Your task to perform on an android device: turn off location history Image 0: 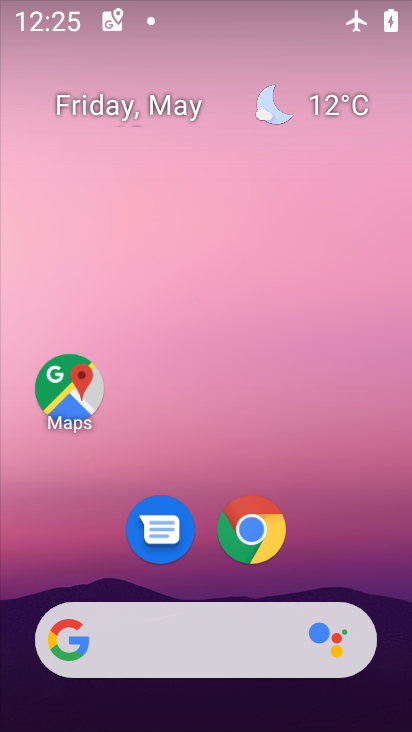
Step 0: drag from (317, 534) to (310, 232)
Your task to perform on an android device: turn off location history Image 1: 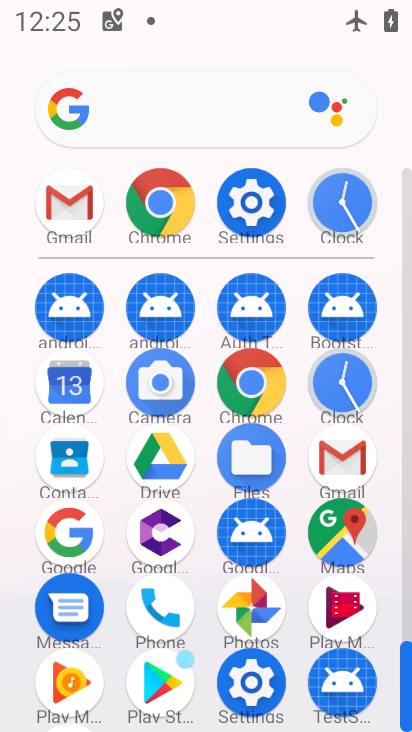
Step 1: click (246, 176)
Your task to perform on an android device: turn off location history Image 2: 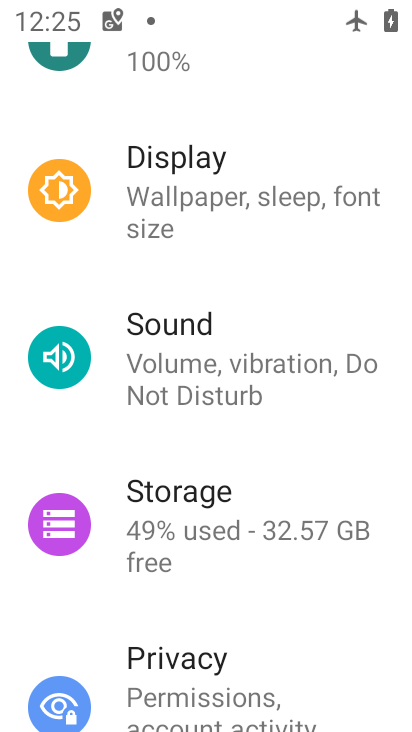
Step 2: drag from (224, 618) to (233, 99)
Your task to perform on an android device: turn off location history Image 3: 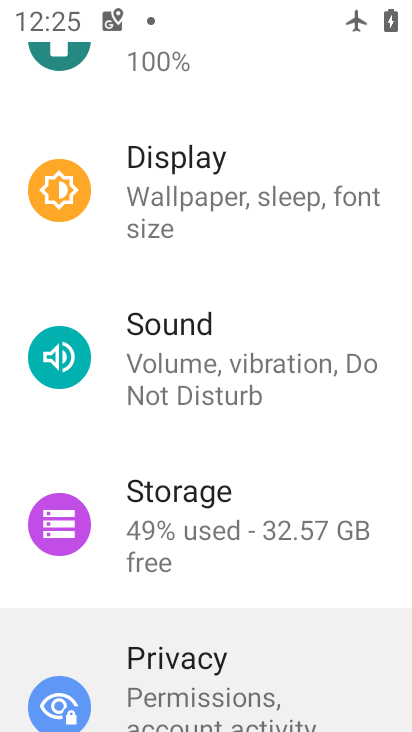
Step 3: drag from (215, 579) to (281, 224)
Your task to perform on an android device: turn off location history Image 4: 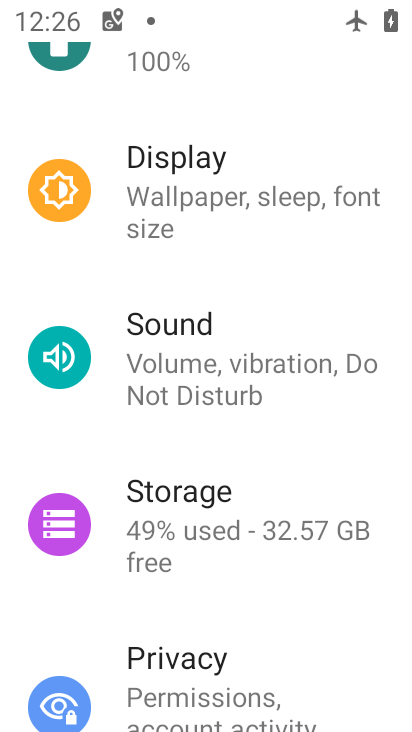
Step 4: drag from (215, 511) to (279, 195)
Your task to perform on an android device: turn off location history Image 5: 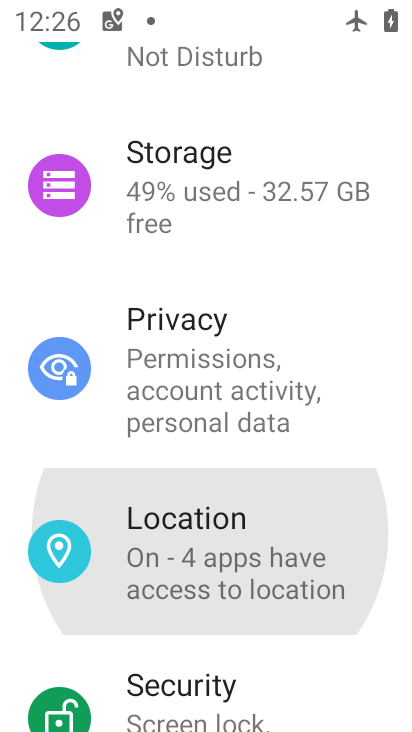
Step 5: drag from (206, 540) to (255, 233)
Your task to perform on an android device: turn off location history Image 6: 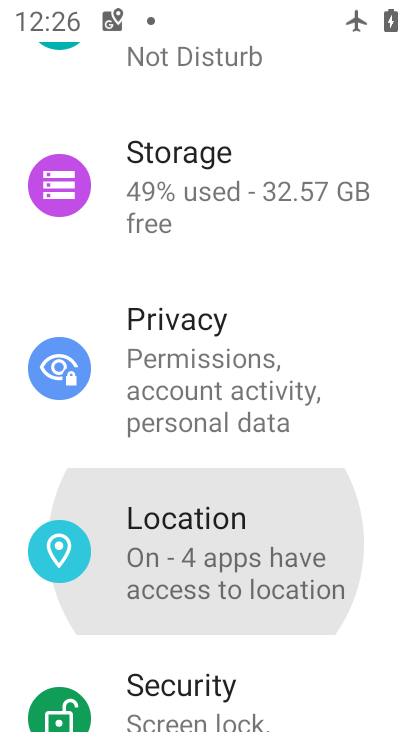
Step 6: drag from (147, 604) to (191, 332)
Your task to perform on an android device: turn off location history Image 7: 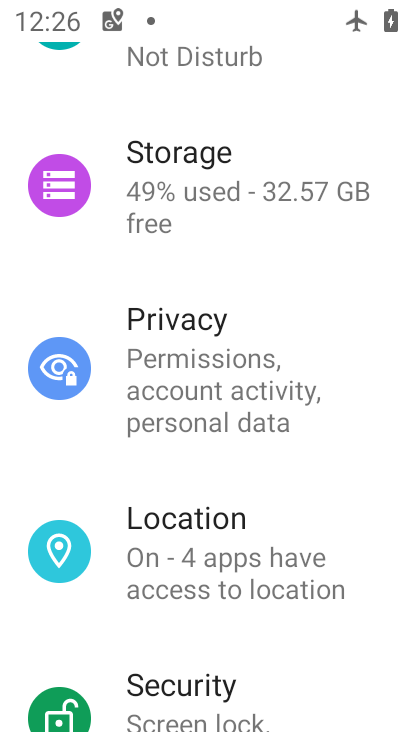
Step 7: drag from (248, 524) to (241, 378)
Your task to perform on an android device: turn off location history Image 8: 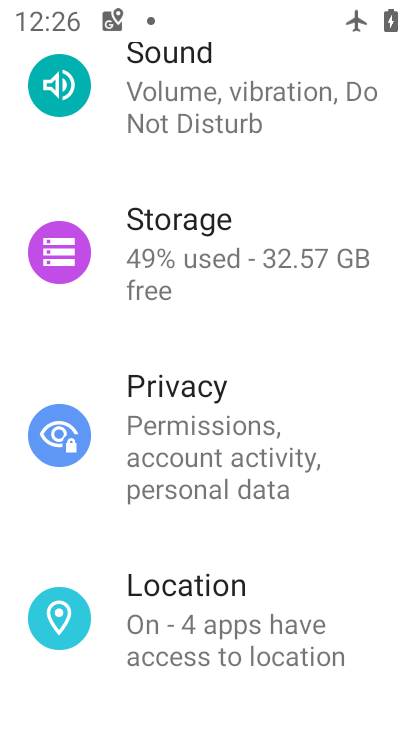
Step 8: click (201, 508)
Your task to perform on an android device: turn off location history Image 9: 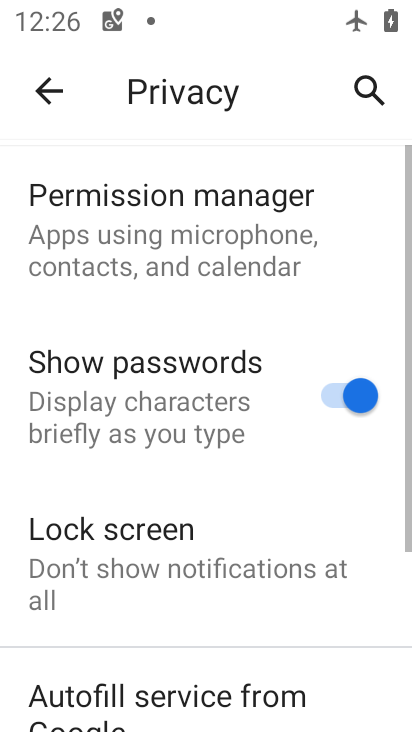
Step 9: click (40, 84)
Your task to perform on an android device: turn off location history Image 10: 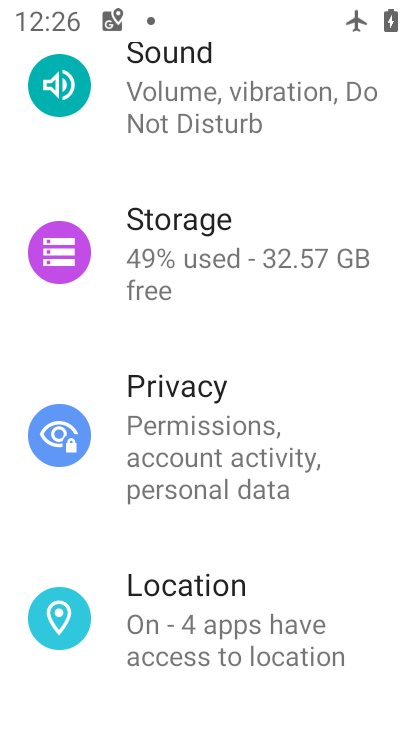
Step 10: click (240, 602)
Your task to perform on an android device: turn off location history Image 11: 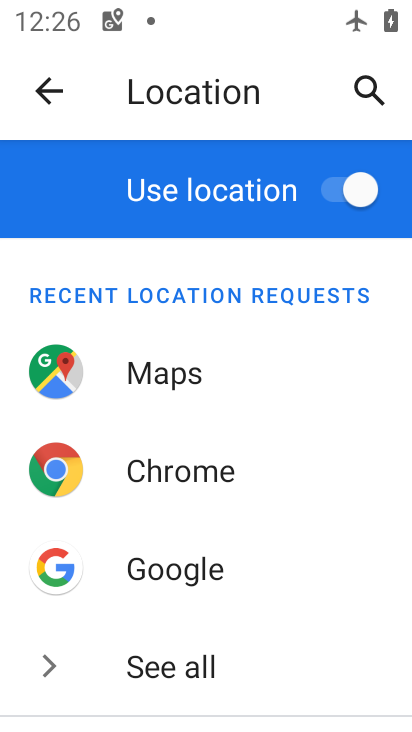
Step 11: drag from (218, 617) to (214, 335)
Your task to perform on an android device: turn off location history Image 12: 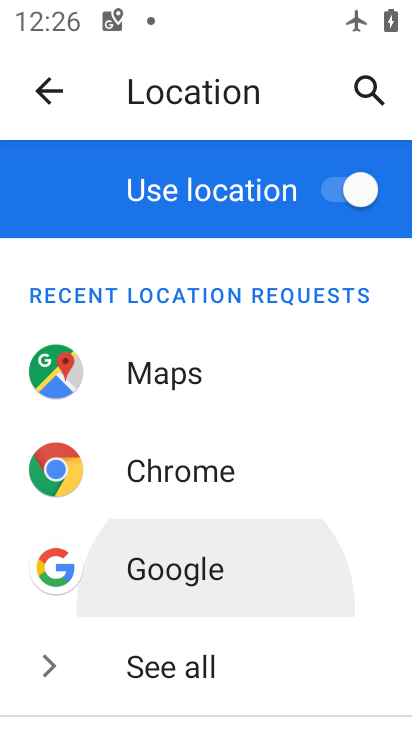
Step 12: drag from (182, 610) to (237, 378)
Your task to perform on an android device: turn off location history Image 13: 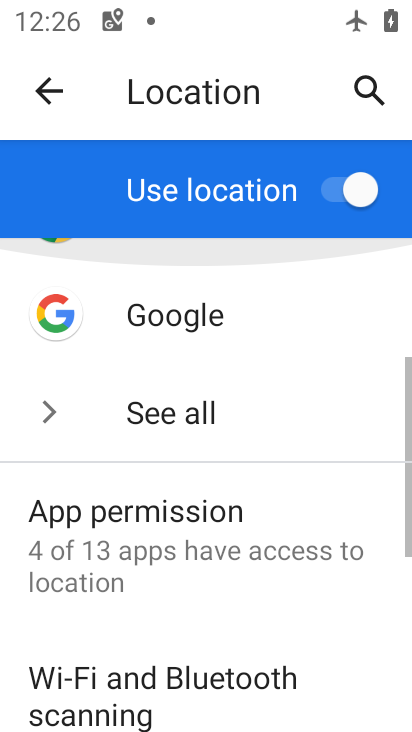
Step 13: drag from (199, 599) to (257, 378)
Your task to perform on an android device: turn off location history Image 14: 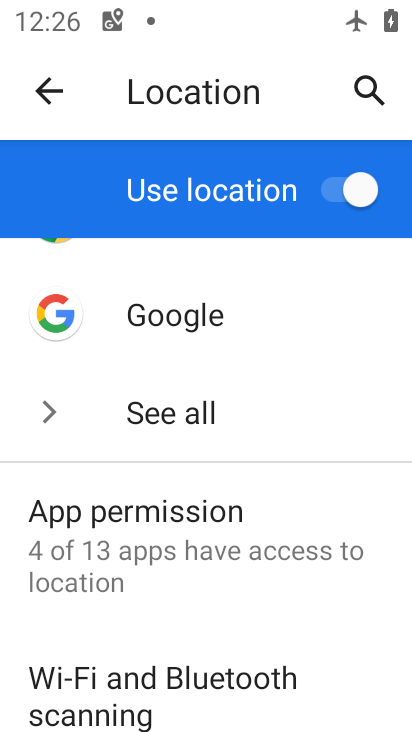
Step 14: click (337, 187)
Your task to perform on an android device: turn off location history Image 15: 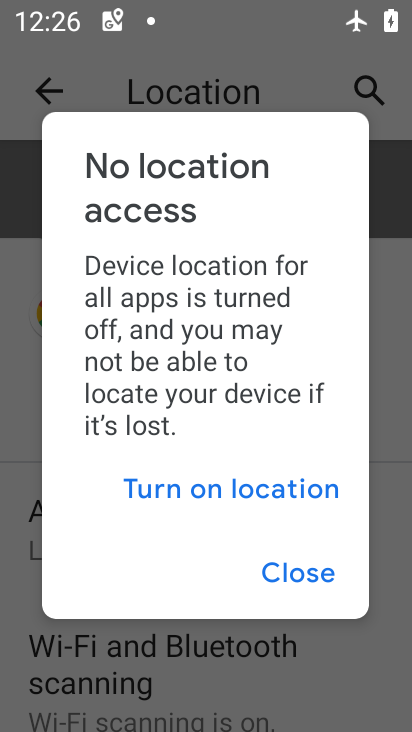
Step 15: task complete